Your task to perform on an android device: create a new album in the google photos Image 0: 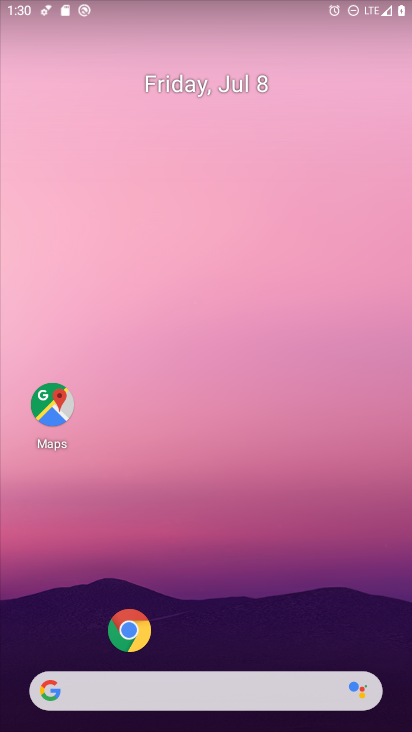
Step 0: drag from (326, 688) to (348, 100)
Your task to perform on an android device: create a new album in the google photos Image 1: 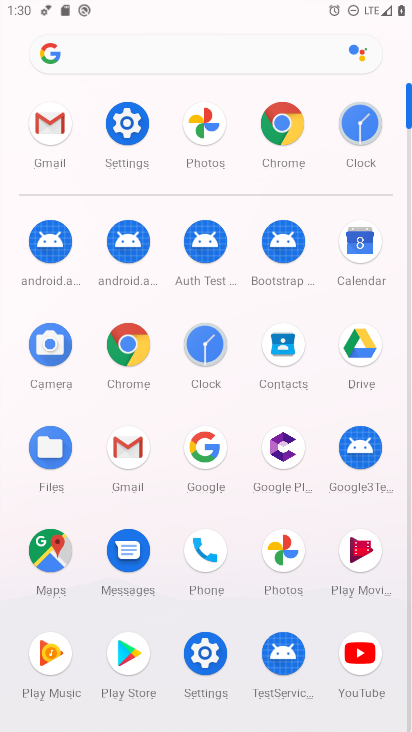
Step 1: click (295, 554)
Your task to perform on an android device: create a new album in the google photos Image 2: 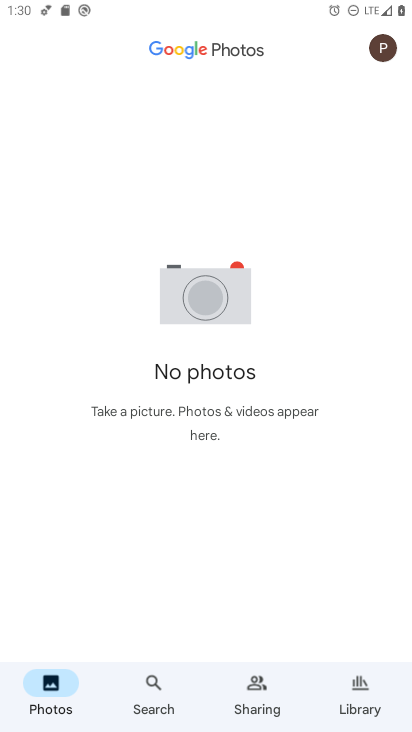
Step 2: click (258, 688)
Your task to perform on an android device: create a new album in the google photos Image 3: 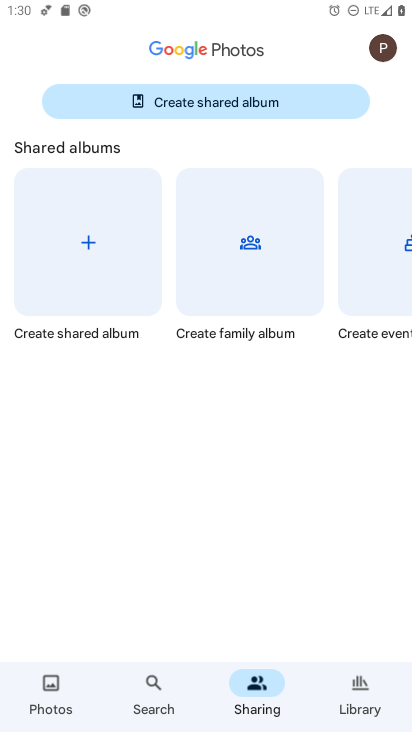
Step 3: click (85, 242)
Your task to perform on an android device: create a new album in the google photos Image 4: 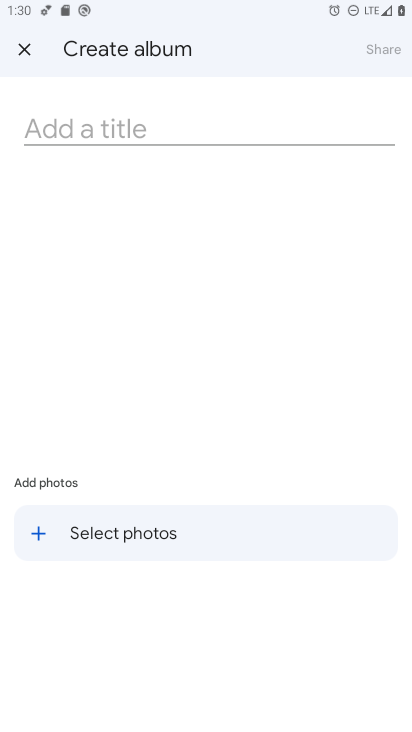
Step 4: click (188, 126)
Your task to perform on an android device: create a new album in the google photos Image 5: 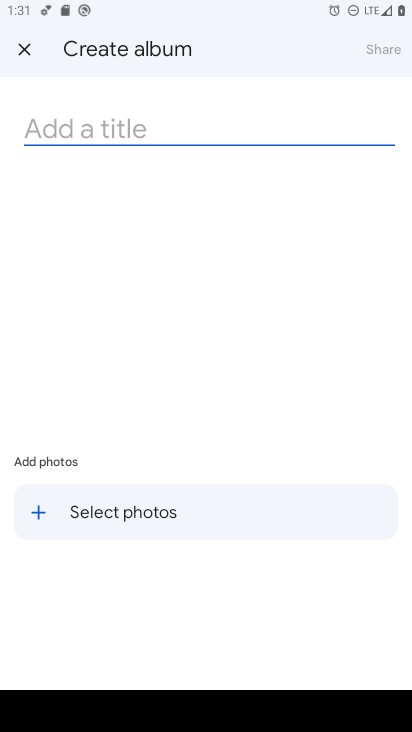
Step 5: type "photos"
Your task to perform on an android device: create a new album in the google photos Image 6: 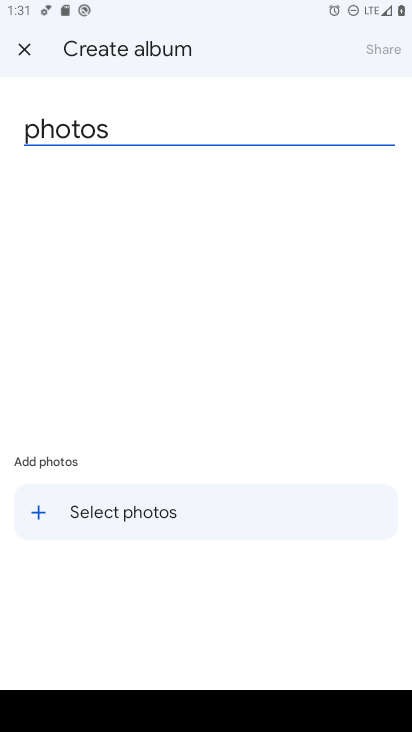
Step 6: click (45, 513)
Your task to perform on an android device: create a new album in the google photos Image 7: 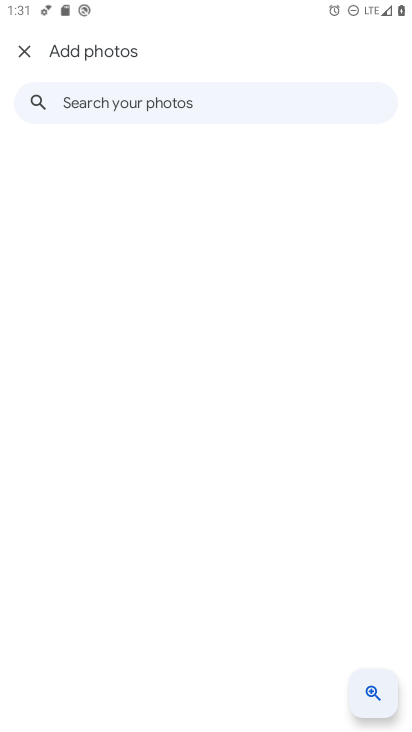
Step 7: task complete